Your task to perform on an android device: Open calendar and show me the third week of next month Image 0: 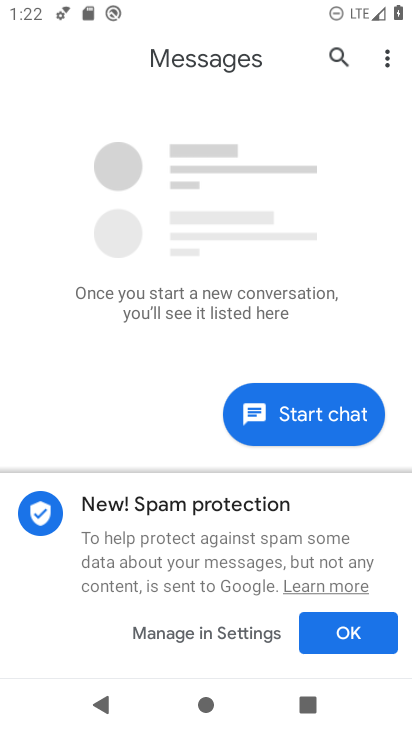
Step 0: press home button
Your task to perform on an android device: Open calendar and show me the third week of next month Image 1: 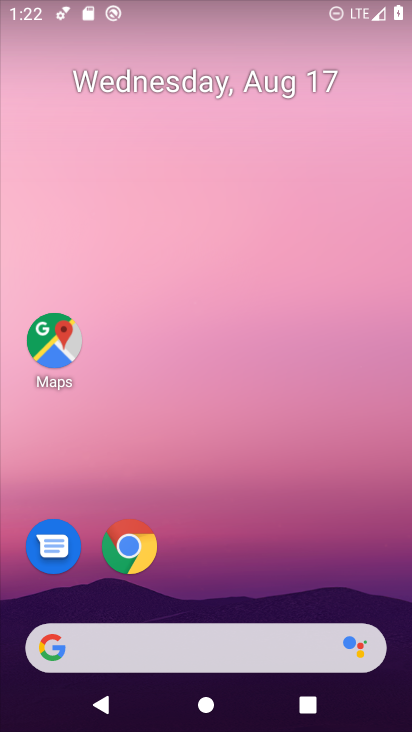
Step 1: drag from (252, 585) to (259, 167)
Your task to perform on an android device: Open calendar and show me the third week of next month Image 2: 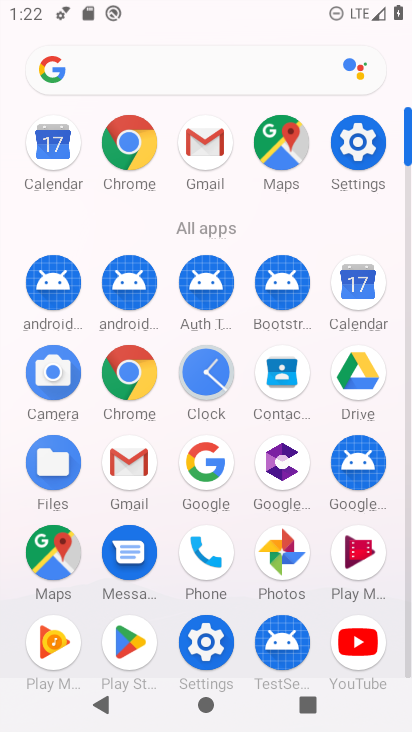
Step 2: click (55, 147)
Your task to perform on an android device: Open calendar and show me the third week of next month Image 3: 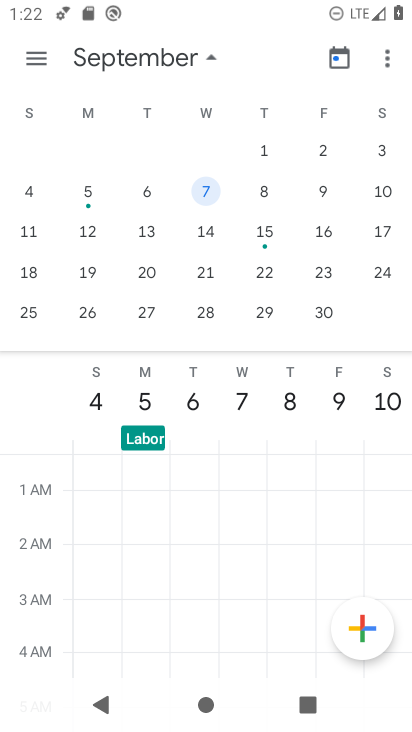
Step 3: click (204, 225)
Your task to perform on an android device: Open calendar and show me the third week of next month Image 4: 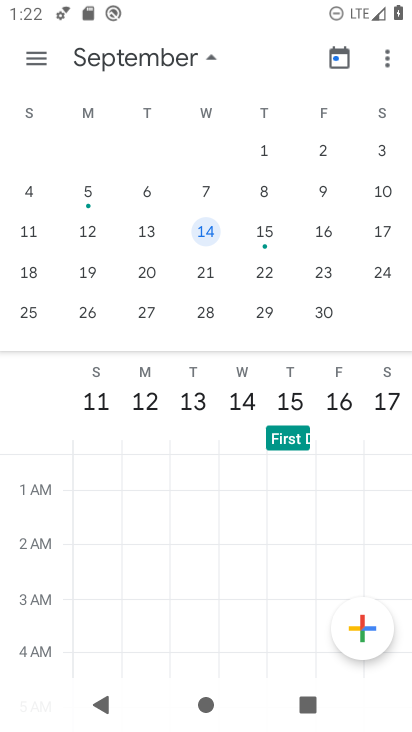
Step 4: task complete